Your task to perform on an android device: open a new tab in the chrome app Image 0: 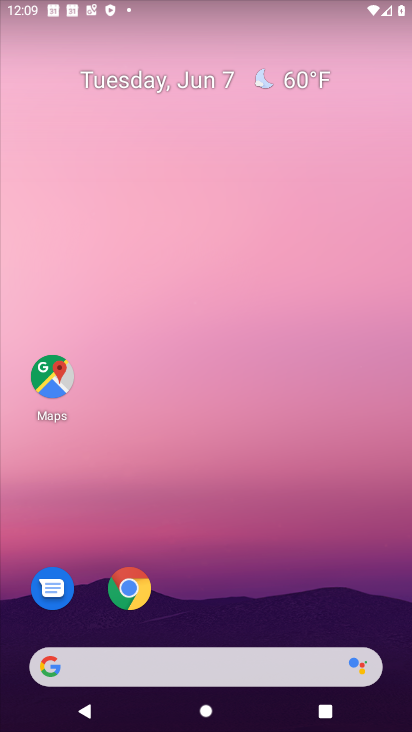
Step 0: click (147, 585)
Your task to perform on an android device: open a new tab in the chrome app Image 1: 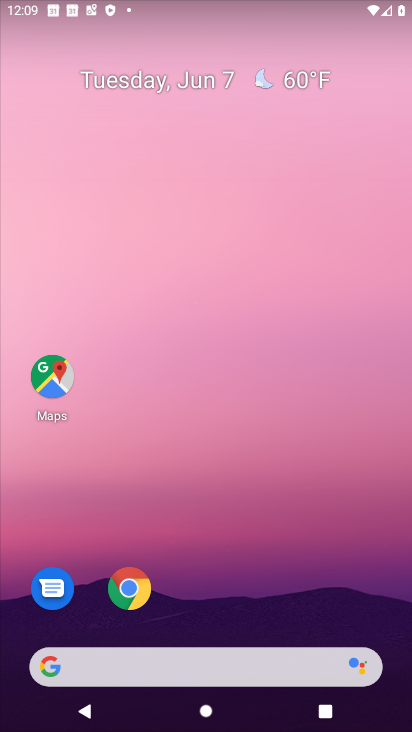
Step 1: click (147, 585)
Your task to perform on an android device: open a new tab in the chrome app Image 2: 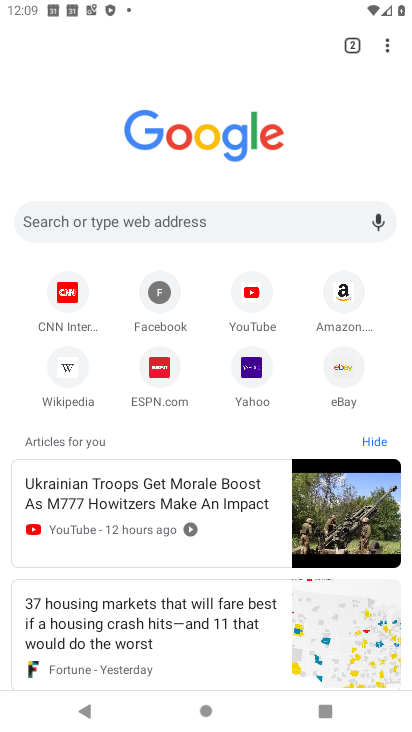
Step 2: click (385, 34)
Your task to perform on an android device: open a new tab in the chrome app Image 3: 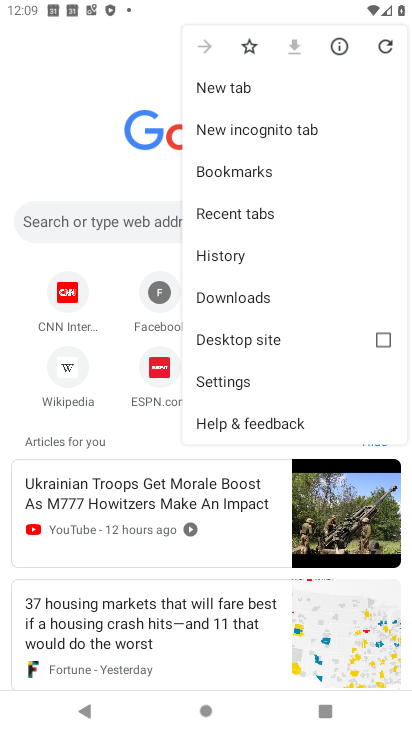
Step 3: click (270, 85)
Your task to perform on an android device: open a new tab in the chrome app Image 4: 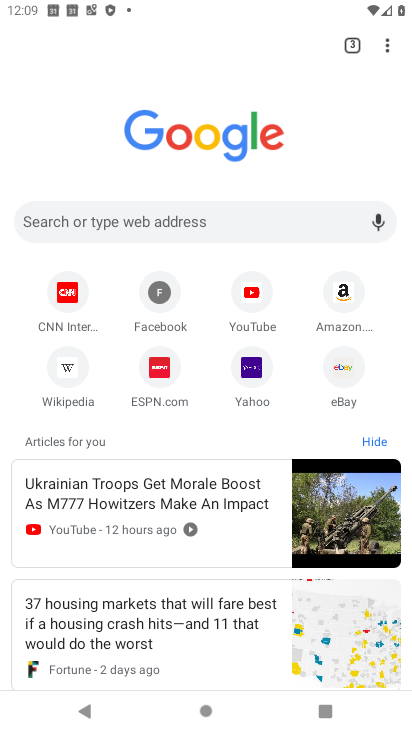
Step 4: task complete